Your task to perform on an android device: Is it going to rain tomorrow? Image 0: 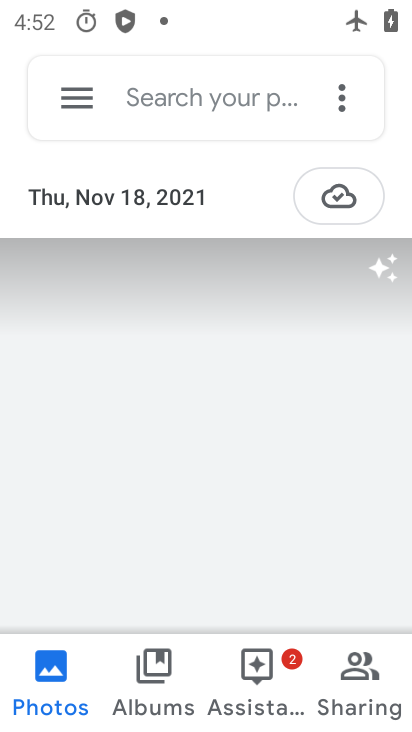
Step 0: press home button
Your task to perform on an android device: Is it going to rain tomorrow? Image 1: 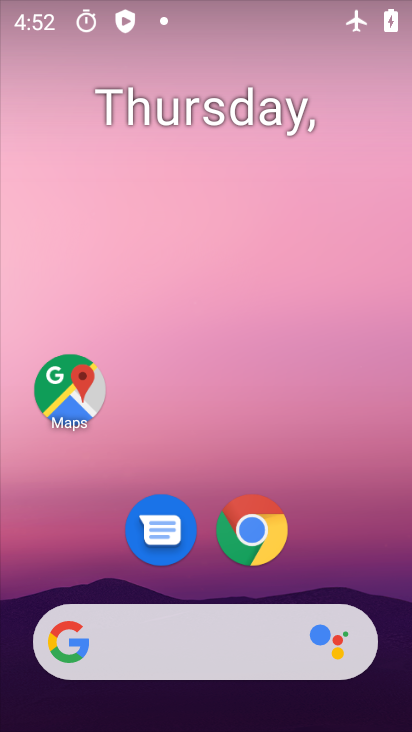
Step 1: drag from (273, 617) to (377, 23)
Your task to perform on an android device: Is it going to rain tomorrow? Image 2: 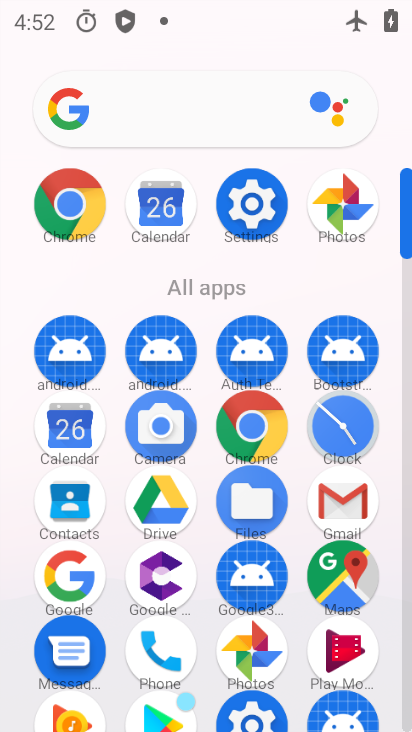
Step 2: click (89, 436)
Your task to perform on an android device: Is it going to rain tomorrow? Image 3: 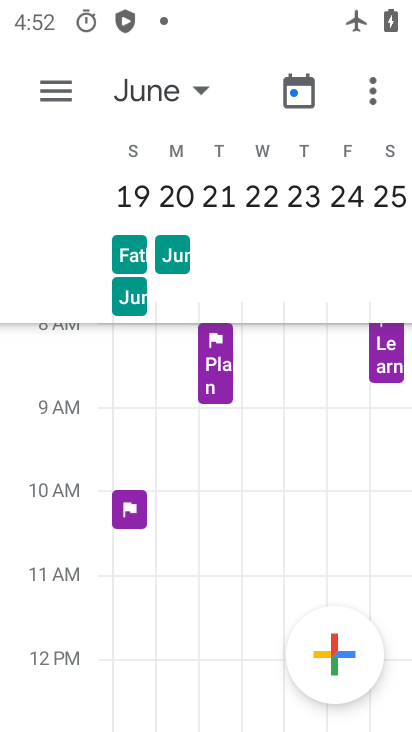
Step 3: task complete